Your task to perform on an android device: Open display settings Image 0: 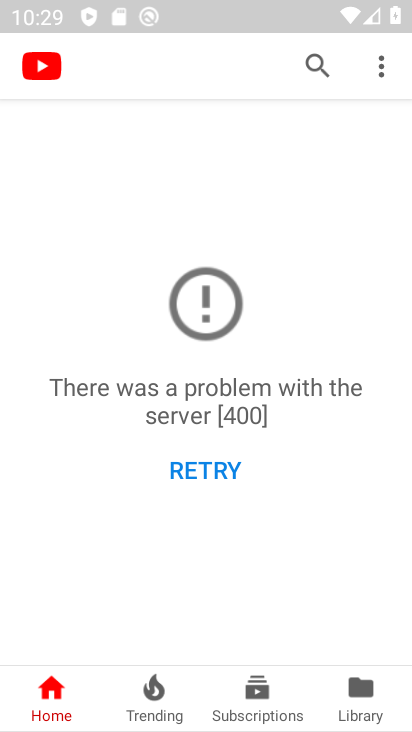
Step 0: press home button
Your task to perform on an android device: Open display settings Image 1: 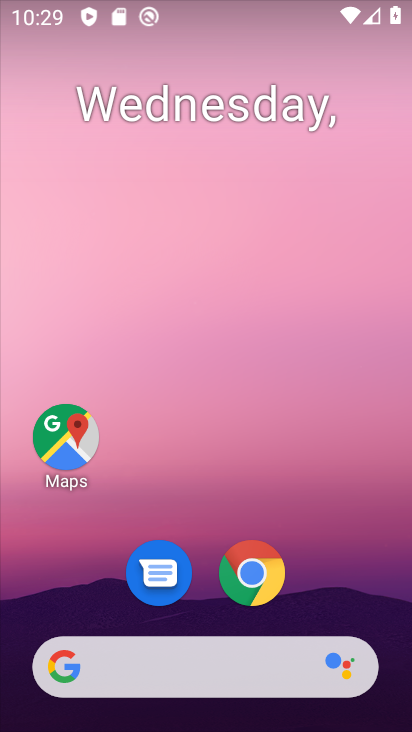
Step 1: drag from (208, 514) to (253, 1)
Your task to perform on an android device: Open display settings Image 2: 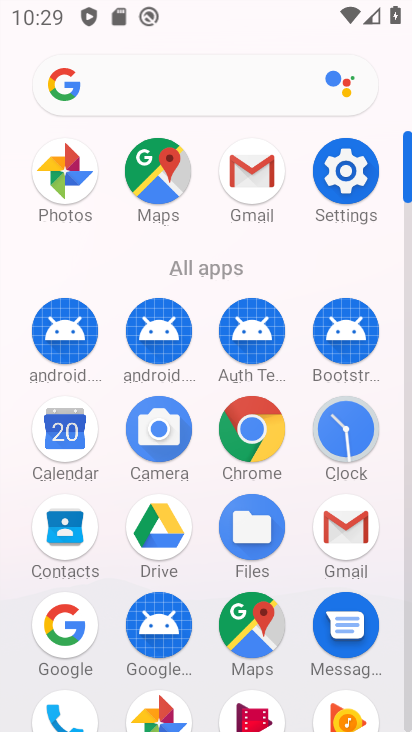
Step 2: click (348, 172)
Your task to perform on an android device: Open display settings Image 3: 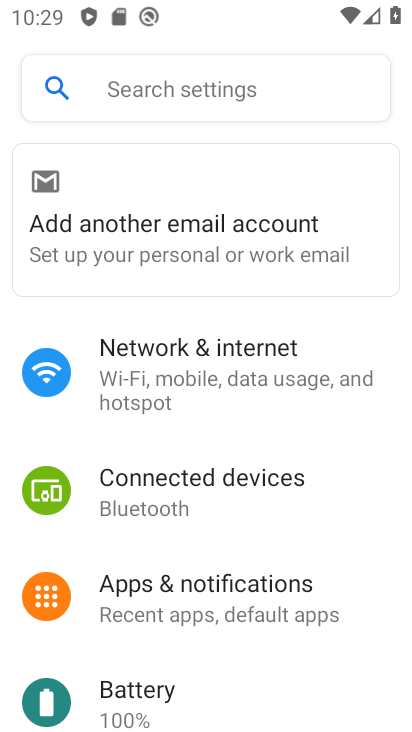
Step 3: drag from (239, 501) to (261, 426)
Your task to perform on an android device: Open display settings Image 4: 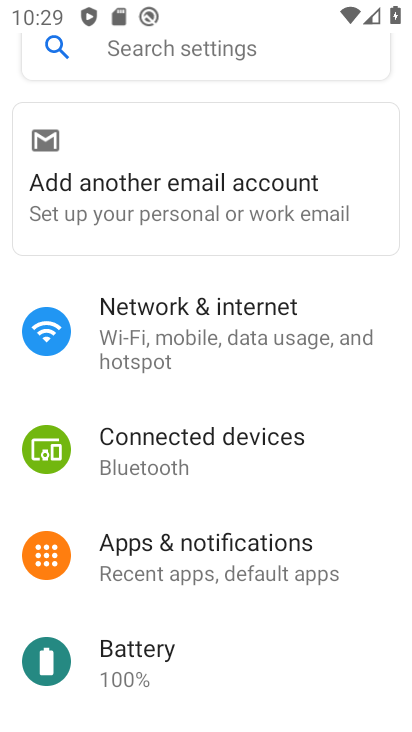
Step 4: drag from (218, 583) to (286, 459)
Your task to perform on an android device: Open display settings Image 5: 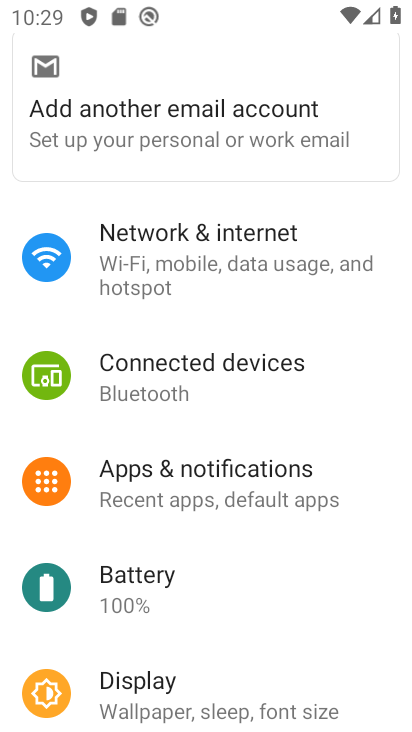
Step 5: drag from (212, 605) to (286, 428)
Your task to perform on an android device: Open display settings Image 6: 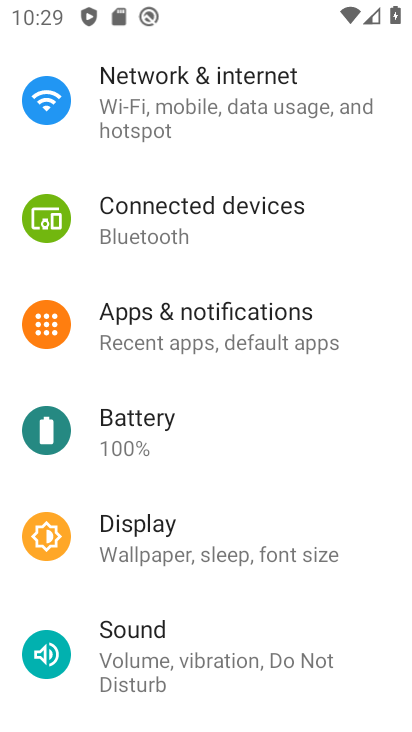
Step 6: click (164, 526)
Your task to perform on an android device: Open display settings Image 7: 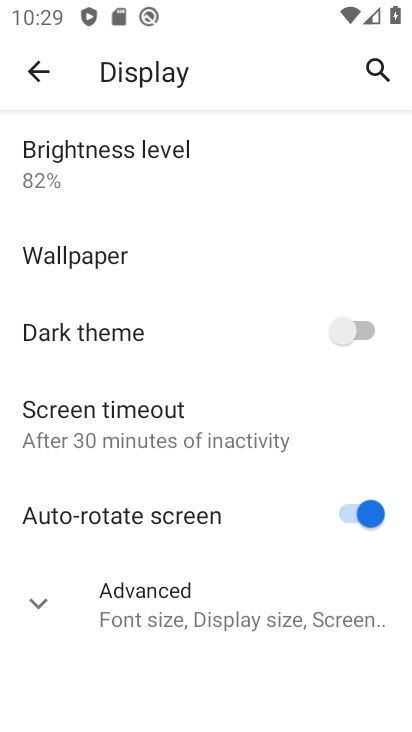
Step 7: task complete